Your task to perform on an android device: toggle data saver in the chrome app Image 0: 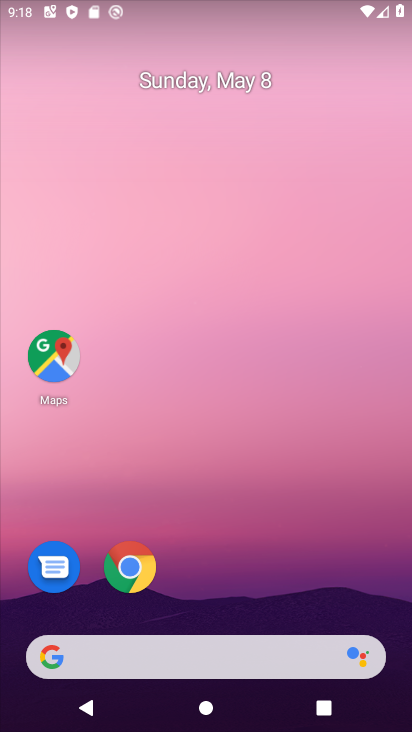
Step 0: drag from (280, 692) to (250, 92)
Your task to perform on an android device: toggle data saver in the chrome app Image 1: 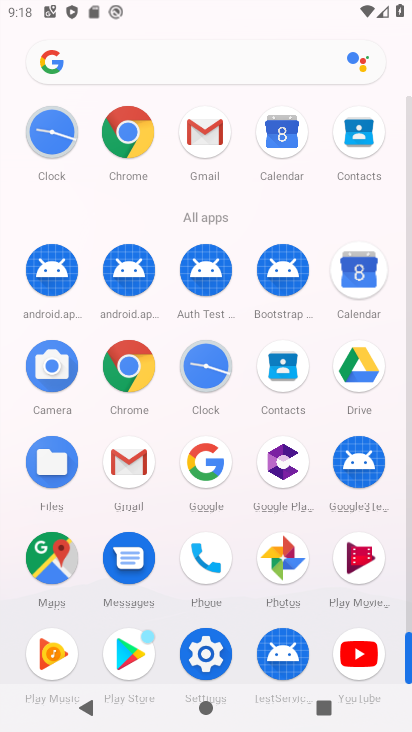
Step 1: click (136, 368)
Your task to perform on an android device: toggle data saver in the chrome app Image 2: 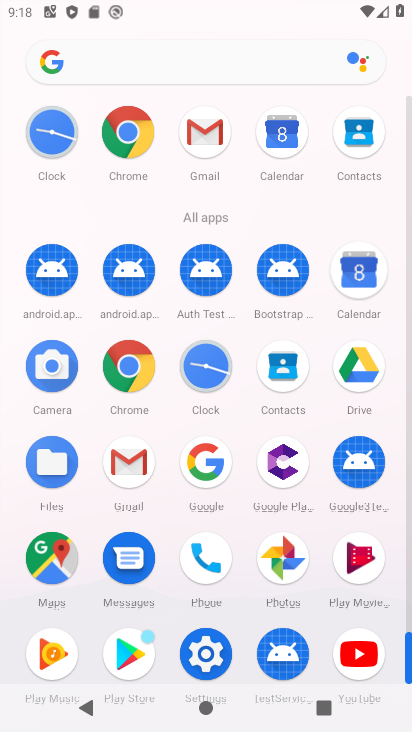
Step 2: click (136, 368)
Your task to perform on an android device: toggle data saver in the chrome app Image 3: 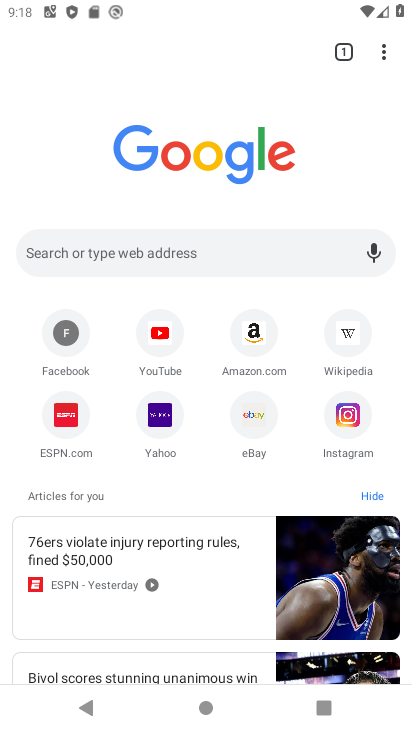
Step 3: click (391, 48)
Your task to perform on an android device: toggle data saver in the chrome app Image 4: 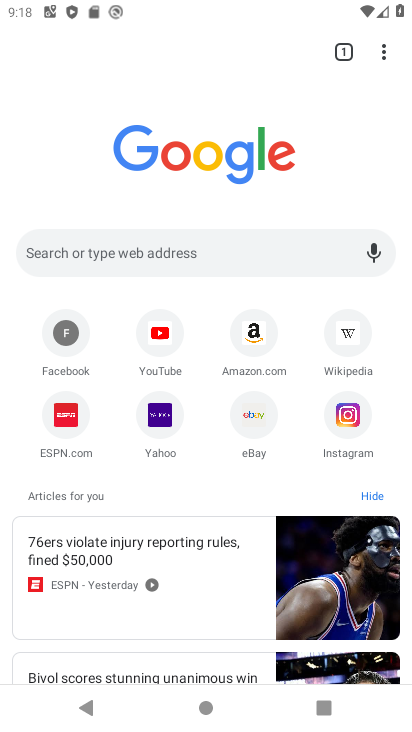
Step 4: click (381, 45)
Your task to perform on an android device: toggle data saver in the chrome app Image 5: 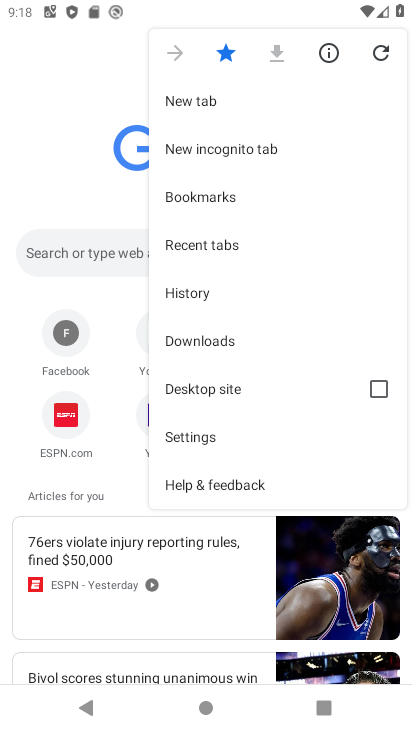
Step 5: click (194, 440)
Your task to perform on an android device: toggle data saver in the chrome app Image 6: 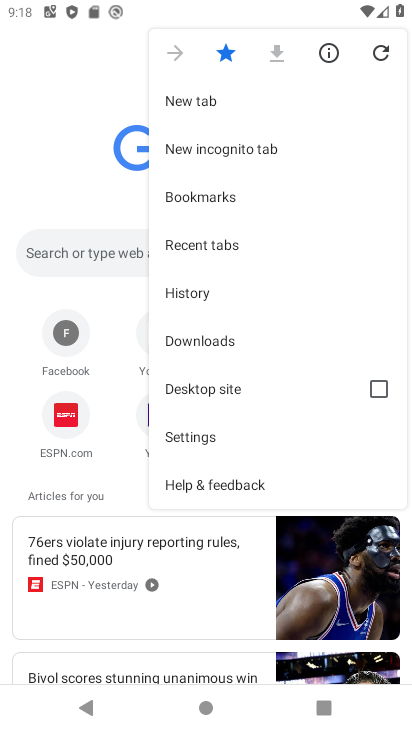
Step 6: click (194, 440)
Your task to perform on an android device: toggle data saver in the chrome app Image 7: 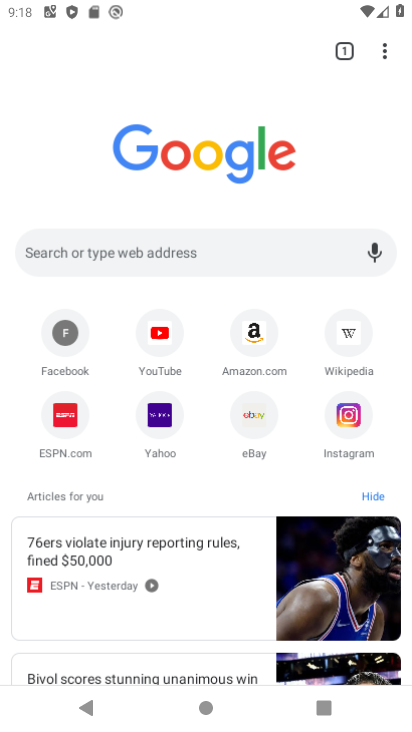
Step 7: click (193, 440)
Your task to perform on an android device: toggle data saver in the chrome app Image 8: 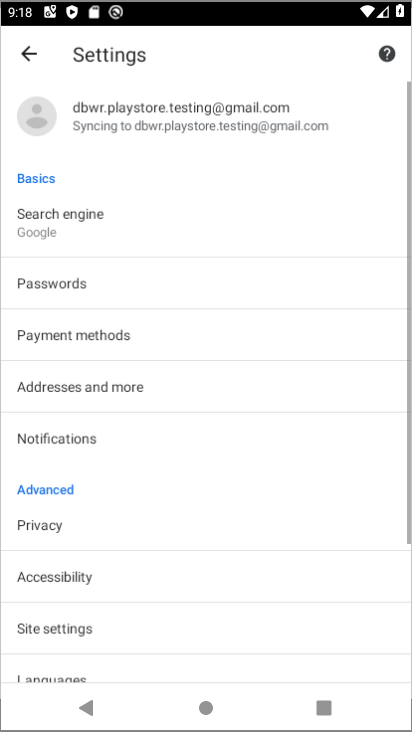
Step 8: click (195, 439)
Your task to perform on an android device: toggle data saver in the chrome app Image 9: 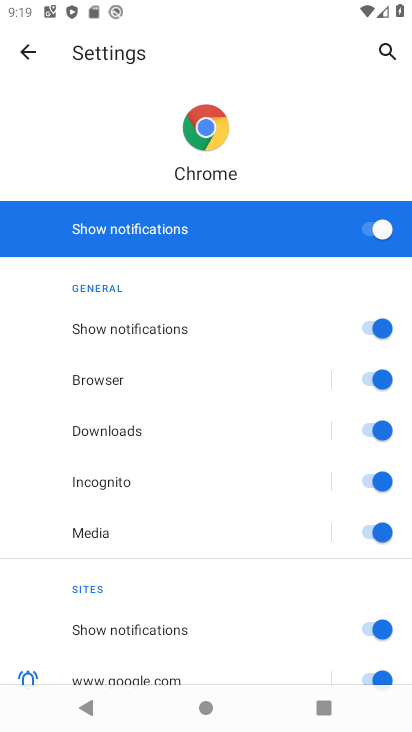
Step 9: click (25, 63)
Your task to perform on an android device: toggle data saver in the chrome app Image 10: 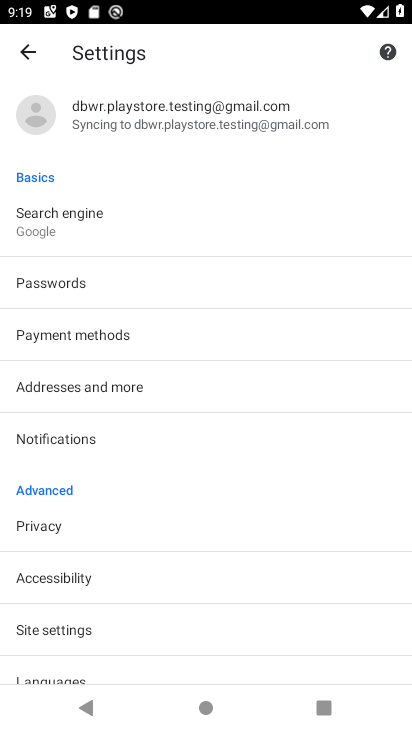
Step 10: click (64, 631)
Your task to perform on an android device: toggle data saver in the chrome app Image 11: 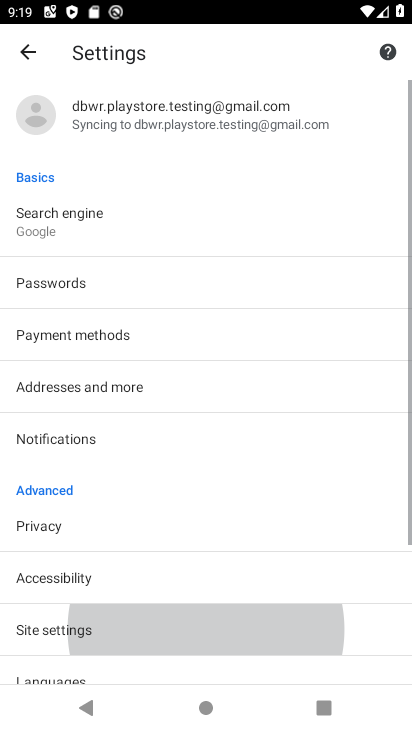
Step 11: click (56, 634)
Your task to perform on an android device: toggle data saver in the chrome app Image 12: 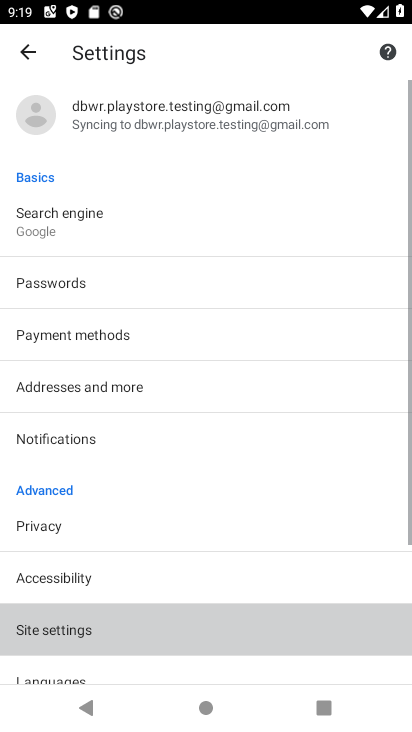
Step 12: click (56, 634)
Your task to perform on an android device: toggle data saver in the chrome app Image 13: 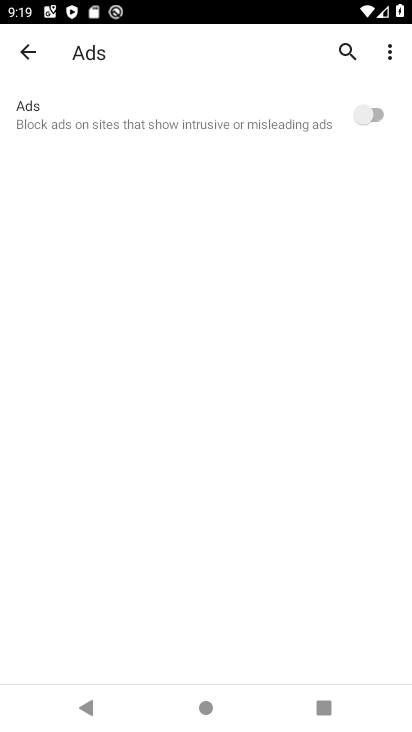
Step 13: click (20, 50)
Your task to perform on an android device: toggle data saver in the chrome app Image 14: 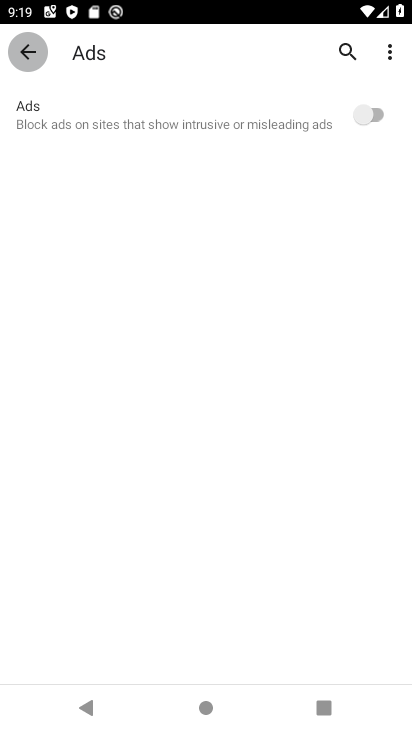
Step 14: click (22, 49)
Your task to perform on an android device: toggle data saver in the chrome app Image 15: 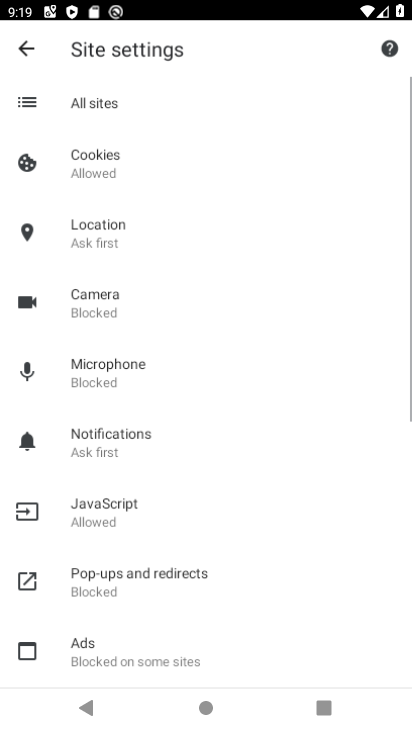
Step 15: click (22, 49)
Your task to perform on an android device: toggle data saver in the chrome app Image 16: 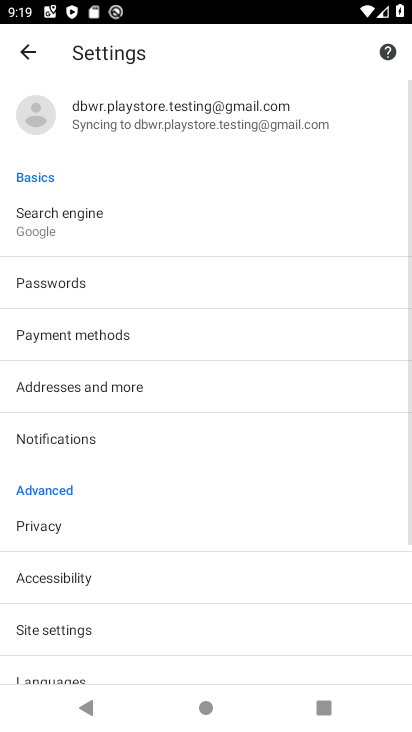
Step 16: click (37, 636)
Your task to perform on an android device: toggle data saver in the chrome app Image 17: 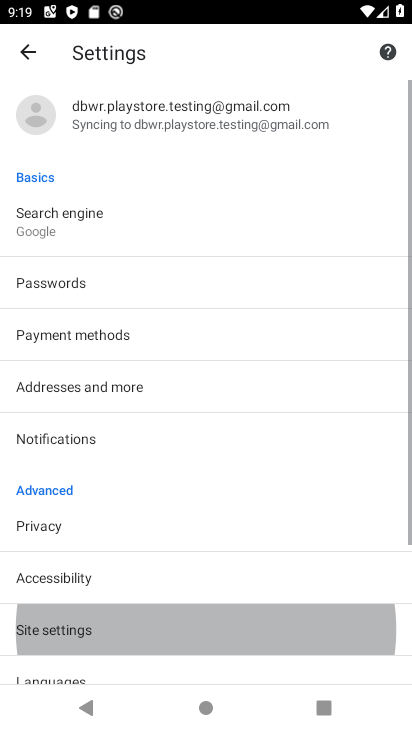
Step 17: click (39, 635)
Your task to perform on an android device: toggle data saver in the chrome app Image 18: 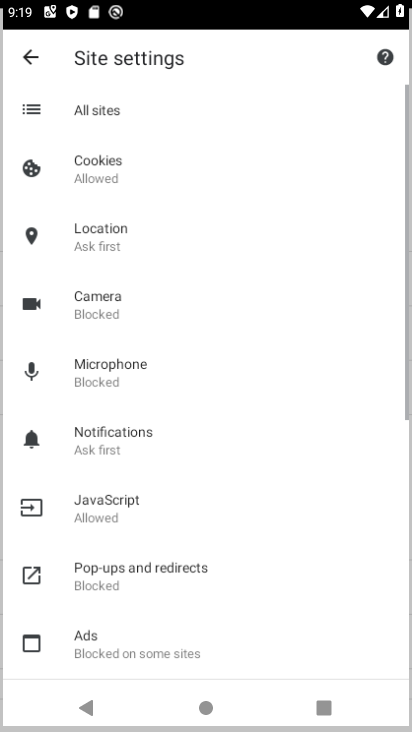
Step 18: click (41, 633)
Your task to perform on an android device: toggle data saver in the chrome app Image 19: 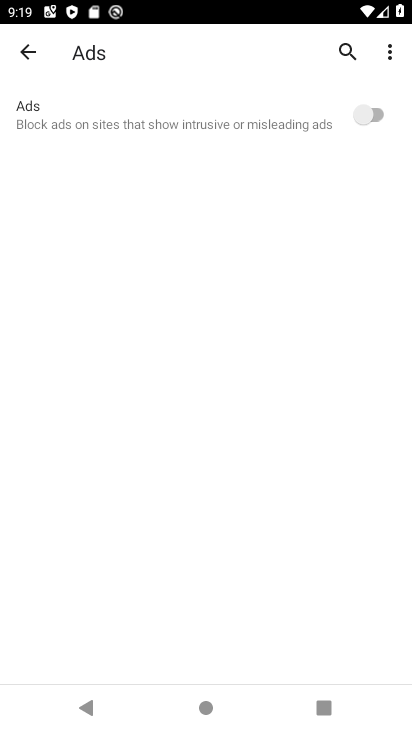
Step 19: click (29, 49)
Your task to perform on an android device: toggle data saver in the chrome app Image 20: 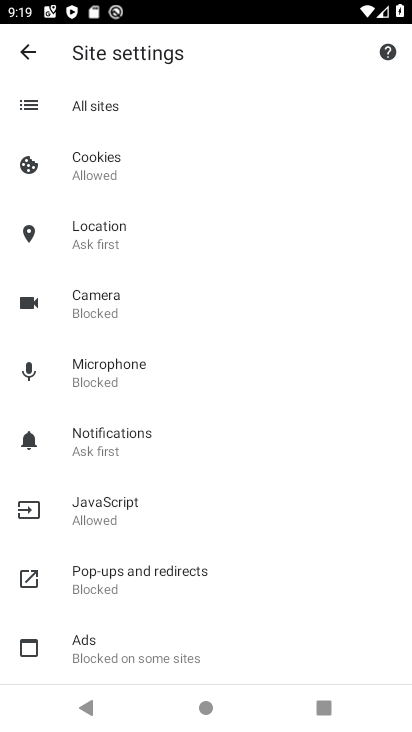
Step 20: click (29, 52)
Your task to perform on an android device: toggle data saver in the chrome app Image 21: 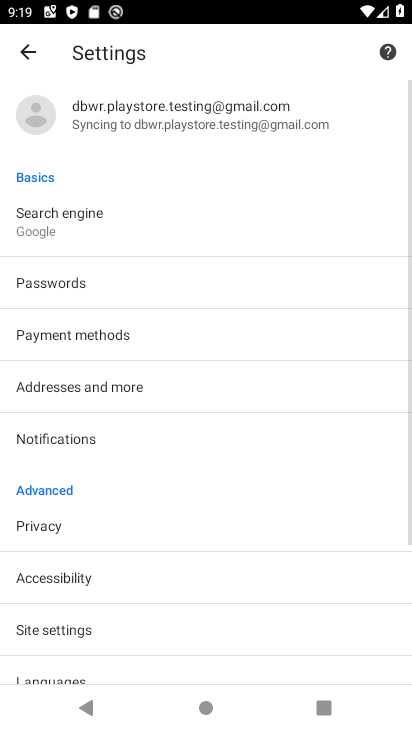
Step 21: drag from (120, 565) to (91, 150)
Your task to perform on an android device: toggle data saver in the chrome app Image 22: 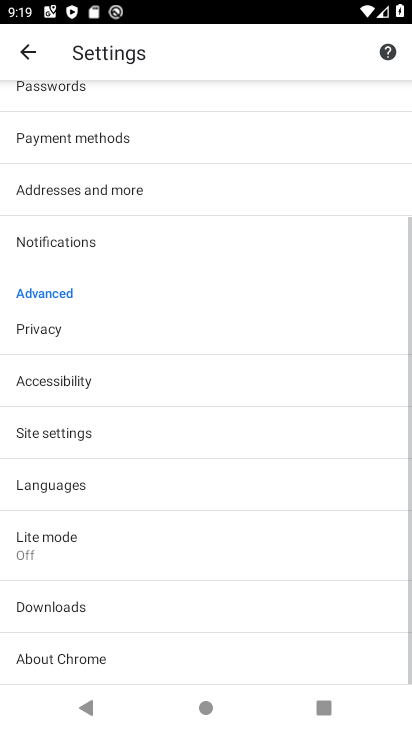
Step 22: click (46, 548)
Your task to perform on an android device: toggle data saver in the chrome app Image 23: 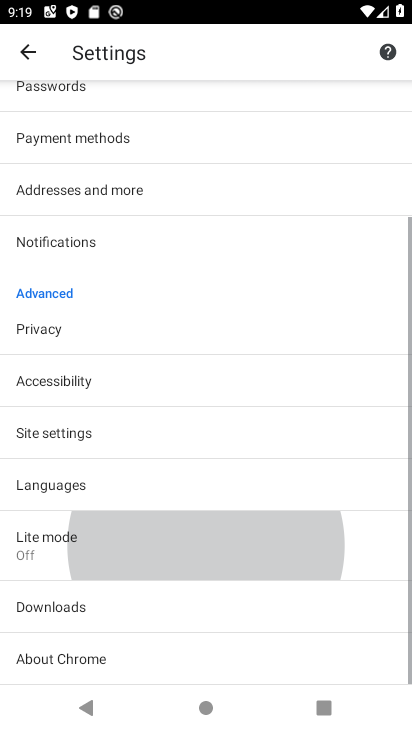
Step 23: click (46, 548)
Your task to perform on an android device: toggle data saver in the chrome app Image 24: 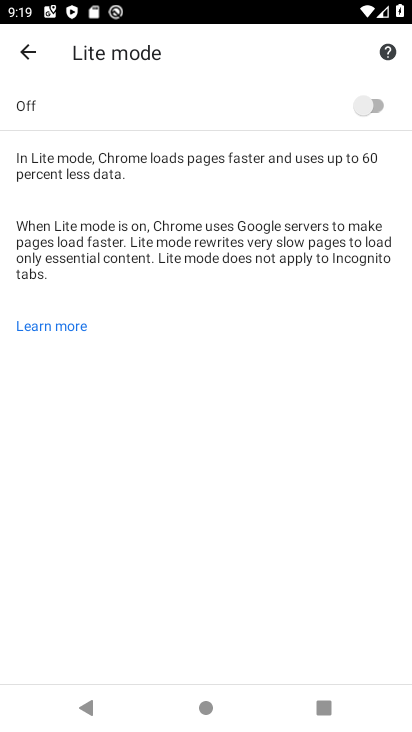
Step 24: click (371, 97)
Your task to perform on an android device: toggle data saver in the chrome app Image 25: 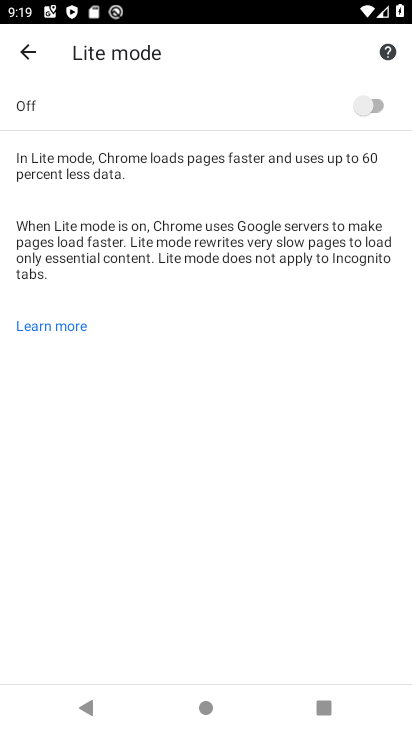
Step 25: click (371, 97)
Your task to perform on an android device: toggle data saver in the chrome app Image 26: 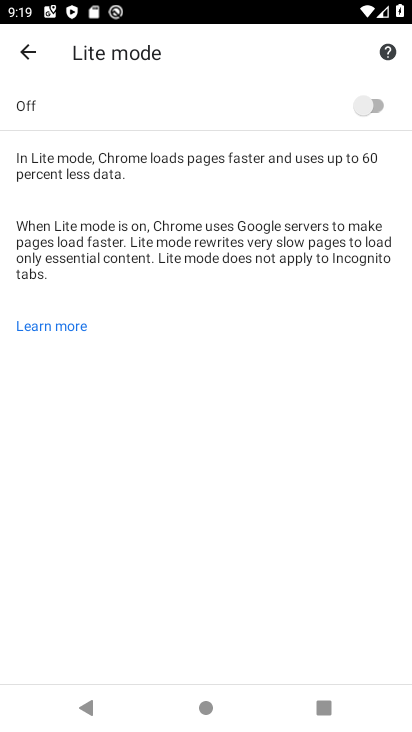
Step 26: click (369, 103)
Your task to perform on an android device: toggle data saver in the chrome app Image 27: 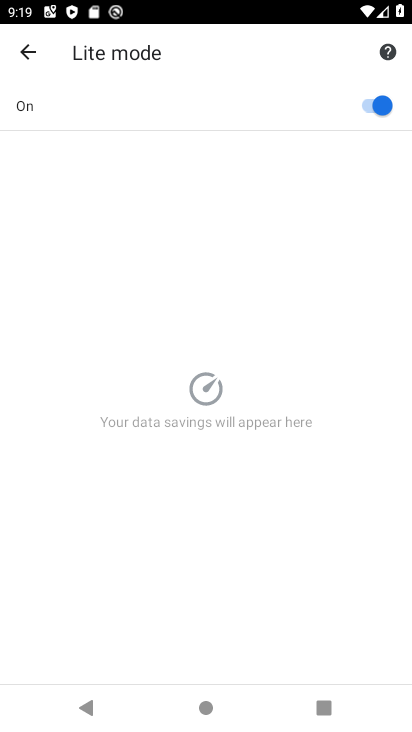
Step 27: task complete